Your task to perform on an android device: turn off picture-in-picture Image 0: 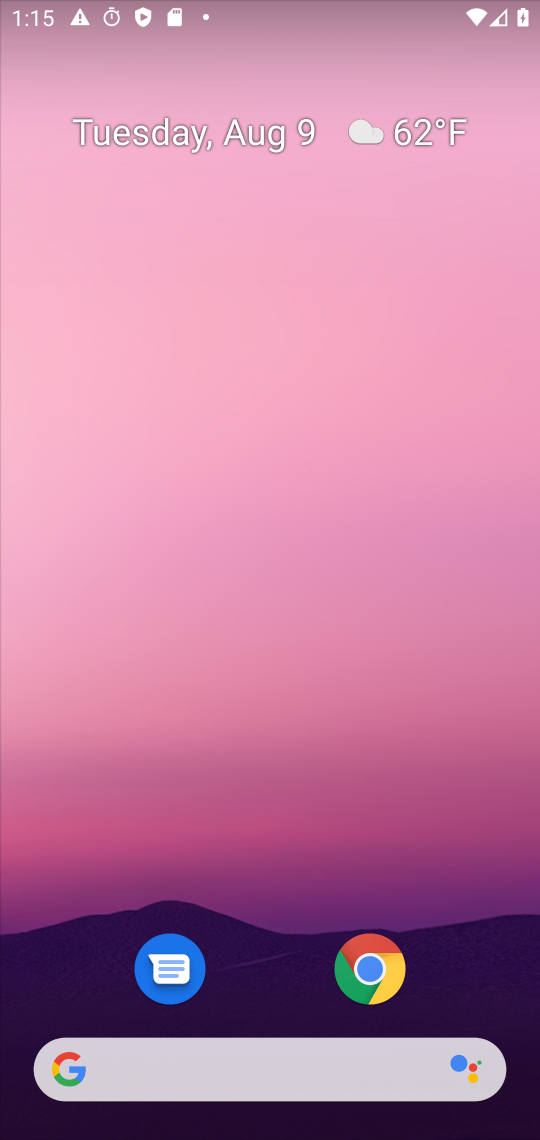
Step 0: drag from (367, 1113) to (286, 299)
Your task to perform on an android device: turn off picture-in-picture Image 1: 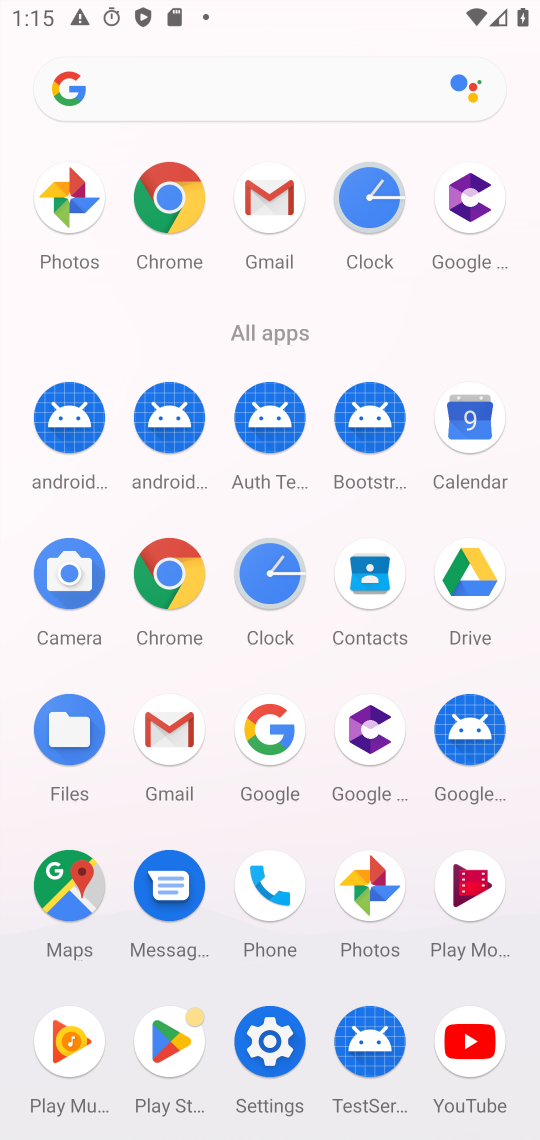
Step 1: click (477, 1036)
Your task to perform on an android device: turn off picture-in-picture Image 2: 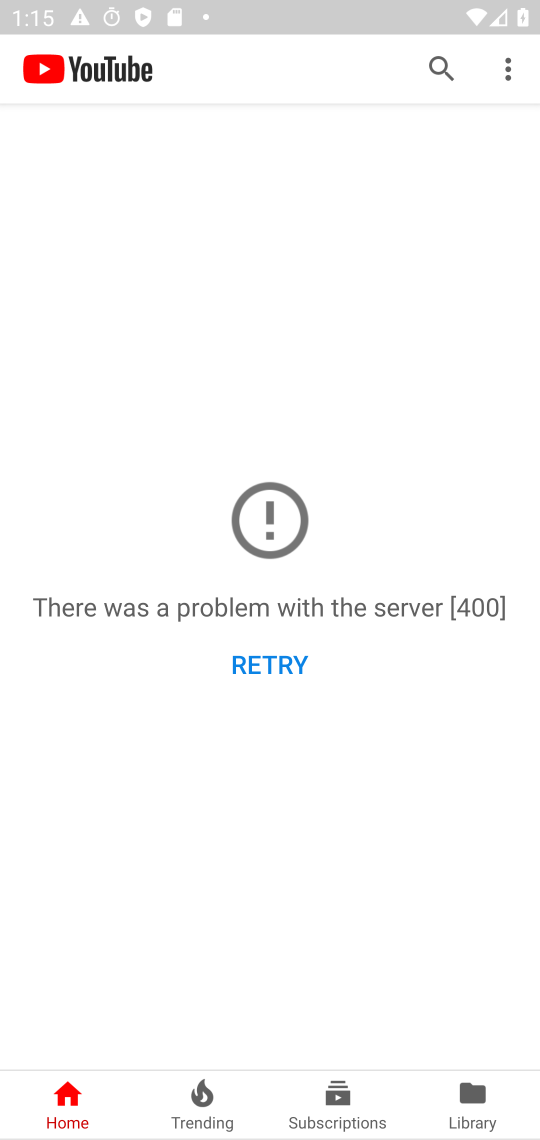
Step 2: click (499, 87)
Your task to perform on an android device: turn off picture-in-picture Image 3: 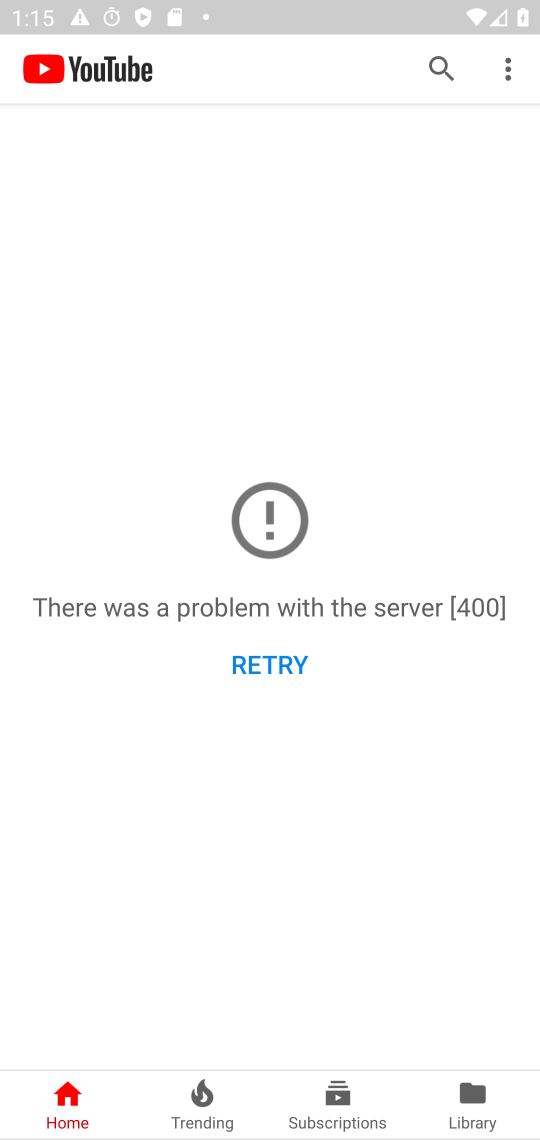
Step 3: click (417, 276)
Your task to perform on an android device: turn off picture-in-picture Image 4: 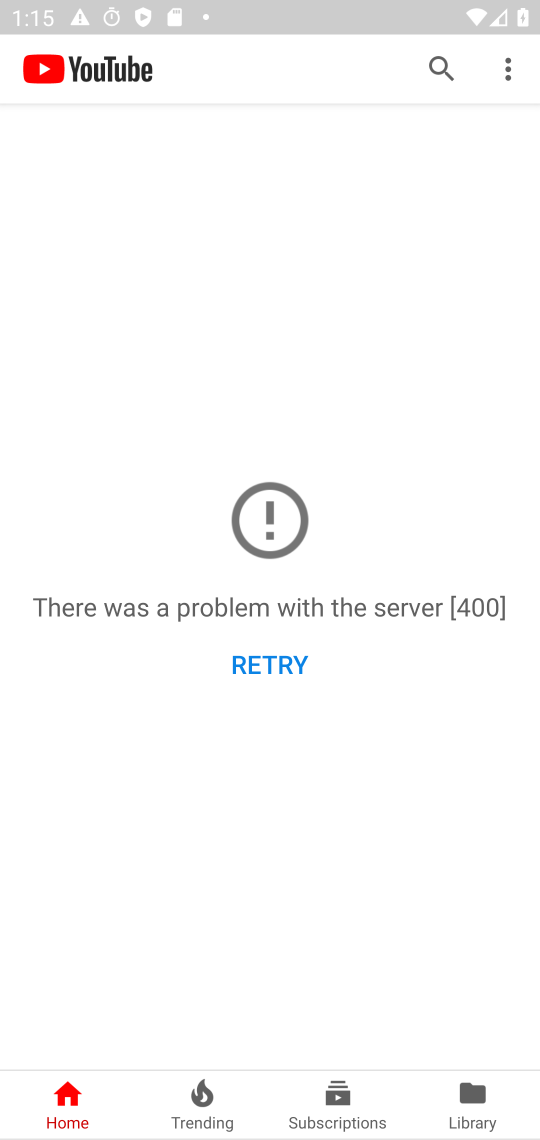
Step 4: click (258, 674)
Your task to perform on an android device: turn off picture-in-picture Image 5: 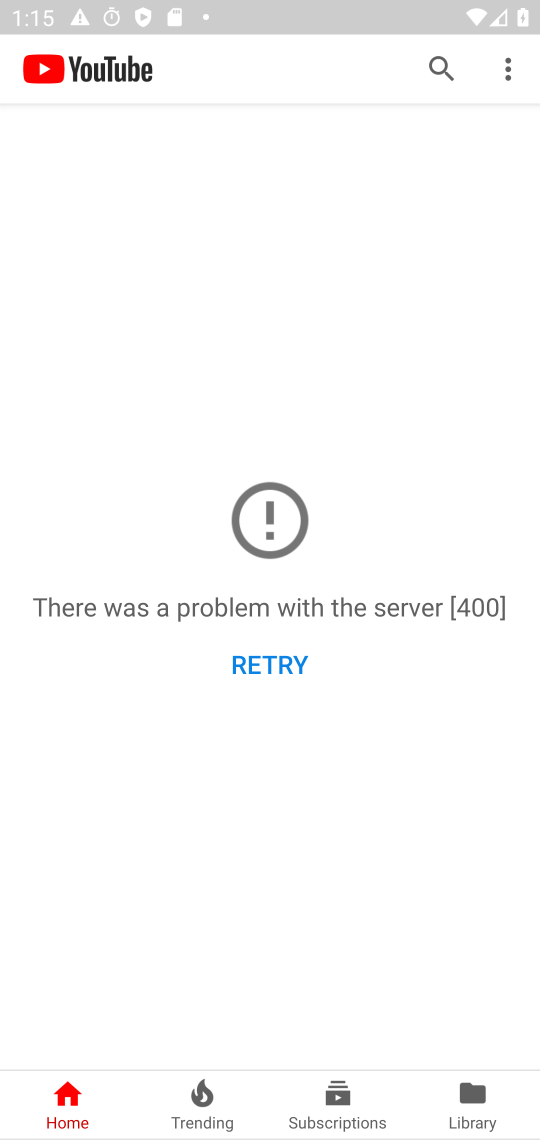
Step 5: click (502, 83)
Your task to perform on an android device: turn off picture-in-picture Image 6: 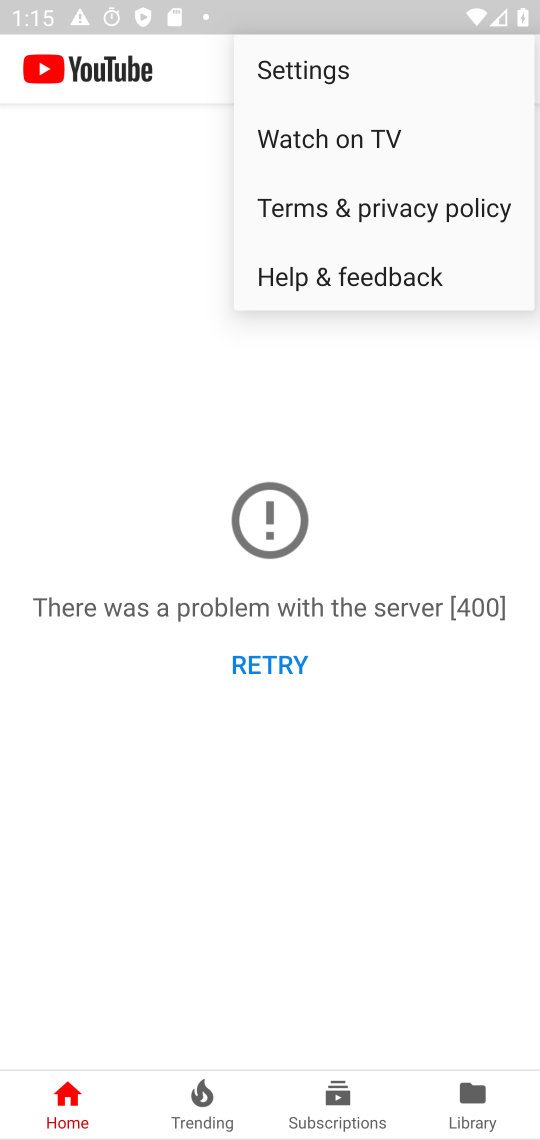
Step 6: click (339, 68)
Your task to perform on an android device: turn off picture-in-picture Image 7: 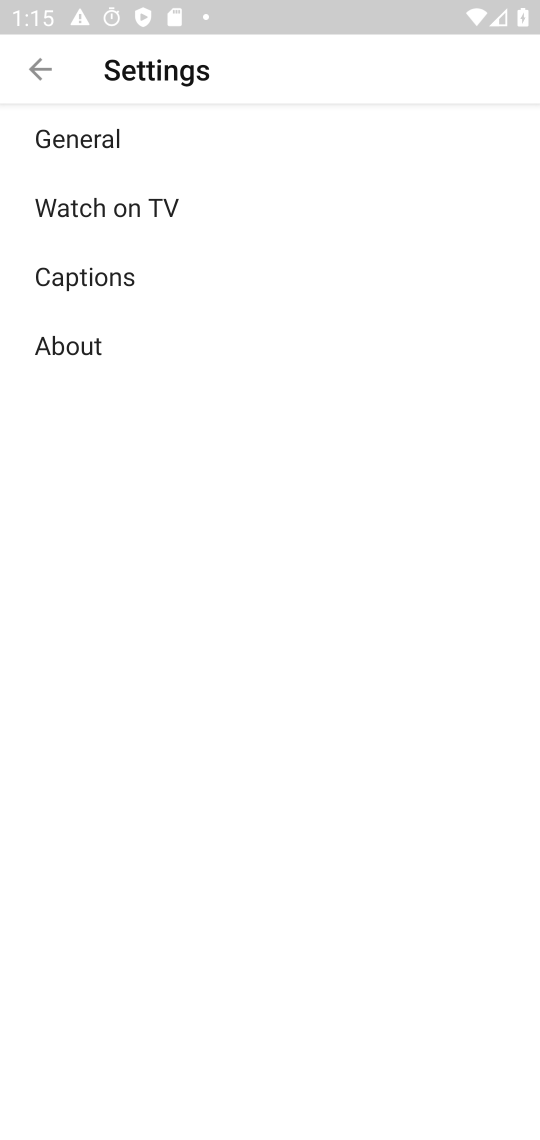
Step 7: click (104, 137)
Your task to perform on an android device: turn off picture-in-picture Image 8: 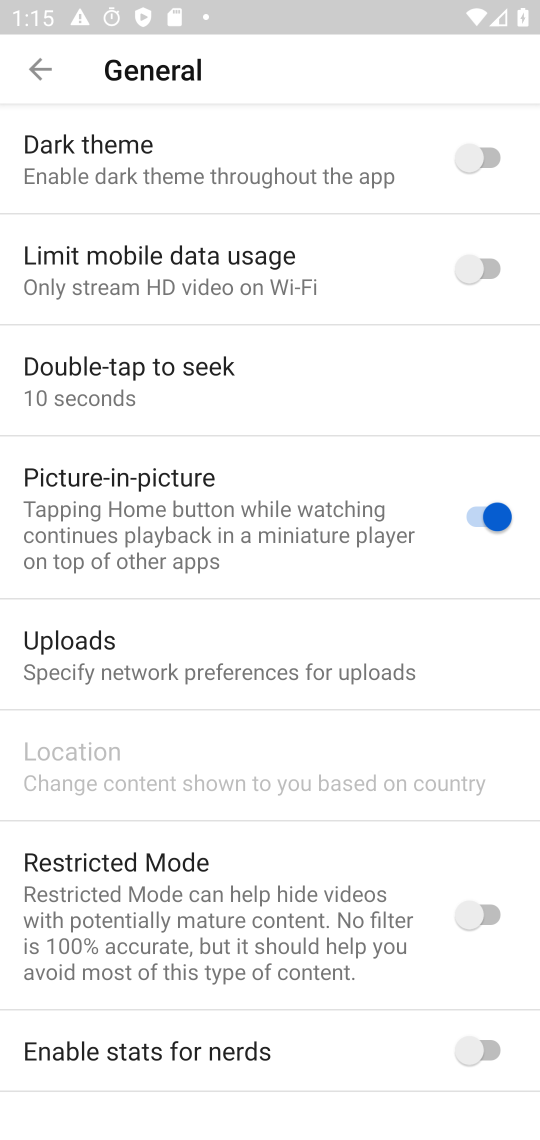
Step 8: click (466, 517)
Your task to perform on an android device: turn off picture-in-picture Image 9: 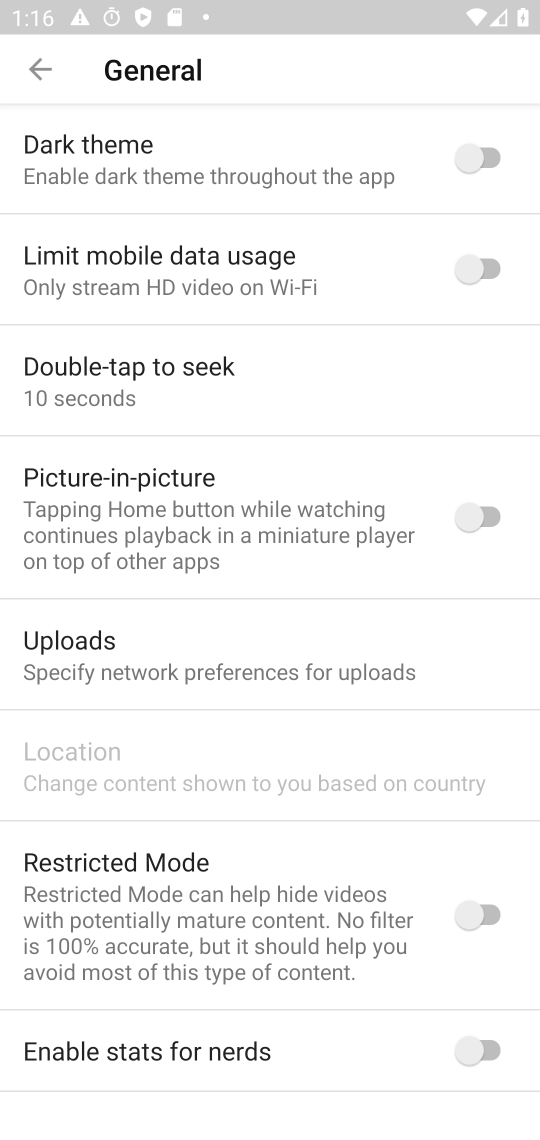
Step 9: task complete